Your task to perform on an android device: Open Wikipedia Image 0: 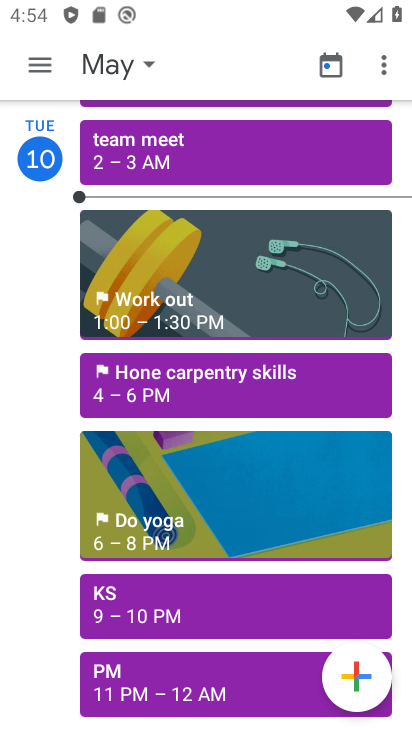
Step 0: press home button
Your task to perform on an android device: Open Wikipedia Image 1: 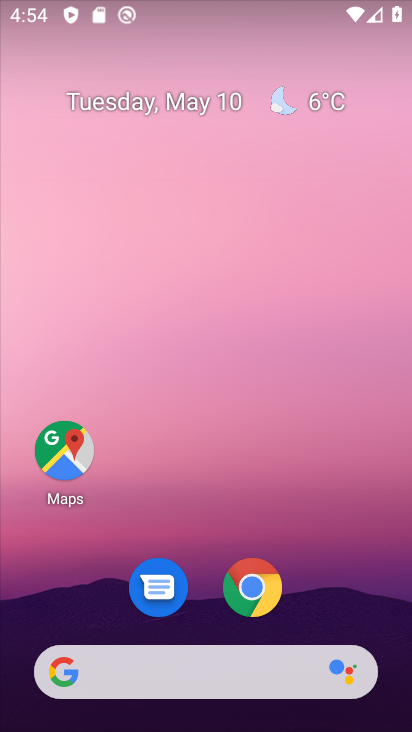
Step 1: click (268, 602)
Your task to perform on an android device: Open Wikipedia Image 2: 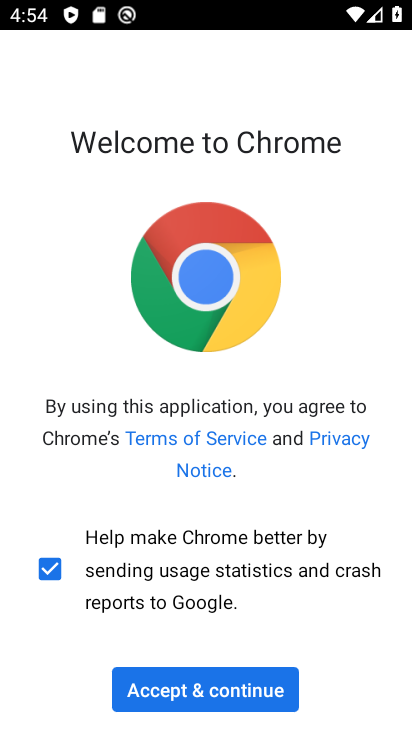
Step 2: click (280, 684)
Your task to perform on an android device: Open Wikipedia Image 3: 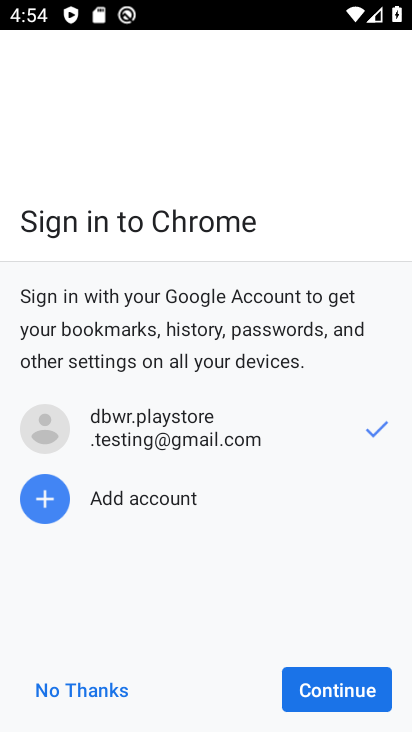
Step 3: click (376, 700)
Your task to perform on an android device: Open Wikipedia Image 4: 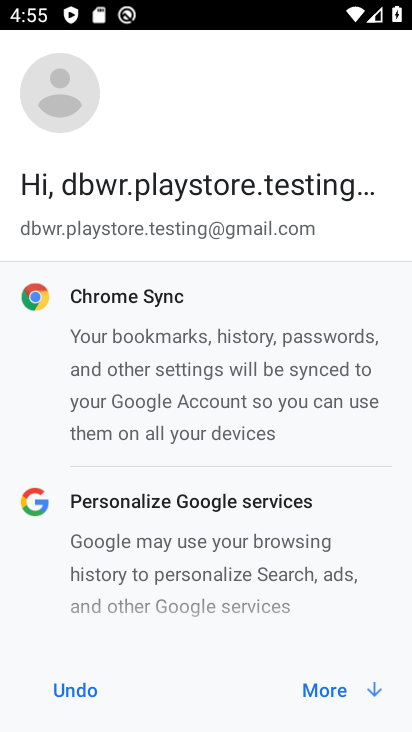
Step 4: click (340, 687)
Your task to perform on an android device: Open Wikipedia Image 5: 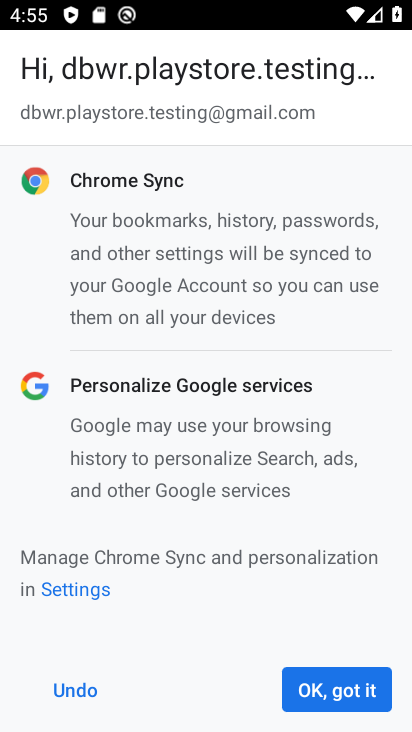
Step 5: click (340, 687)
Your task to perform on an android device: Open Wikipedia Image 6: 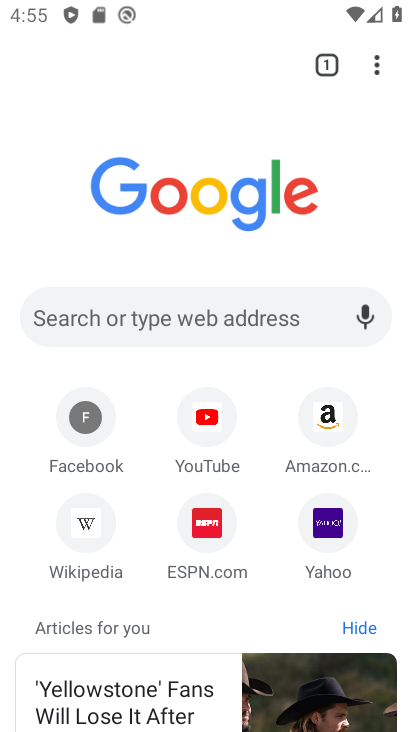
Step 6: click (103, 533)
Your task to perform on an android device: Open Wikipedia Image 7: 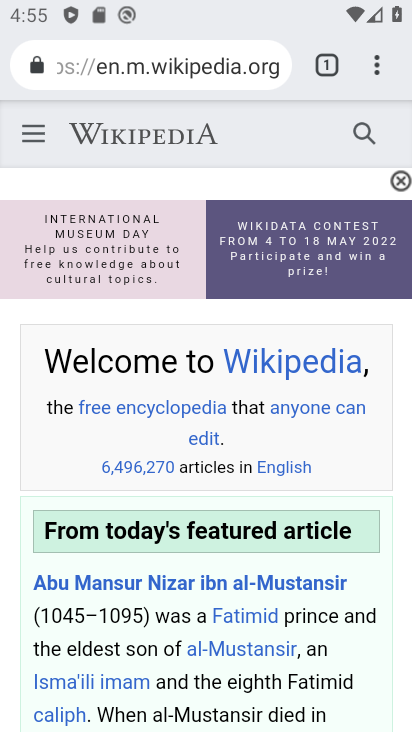
Step 7: task complete